Your task to perform on an android device: turn pop-ups on in chrome Image 0: 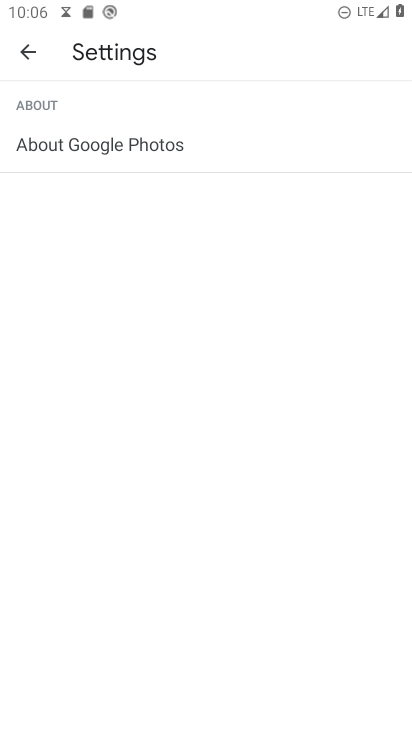
Step 0: press home button
Your task to perform on an android device: turn pop-ups on in chrome Image 1: 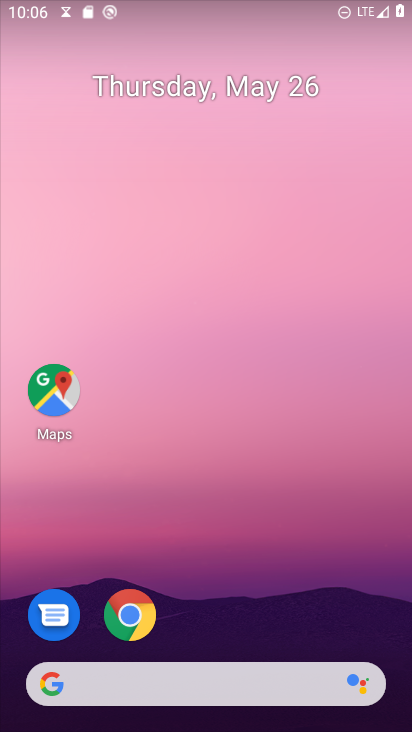
Step 1: click (137, 611)
Your task to perform on an android device: turn pop-ups on in chrome Image 2: 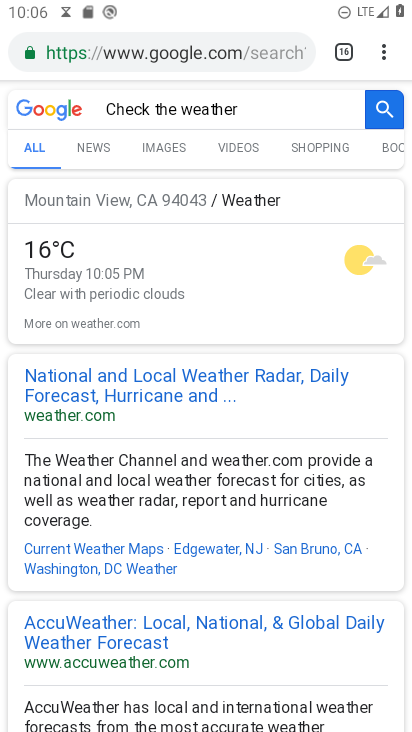
Step 2: click (380, 48)
Your task to perform on an android device: turn pop-ups on in chrome Image 3: 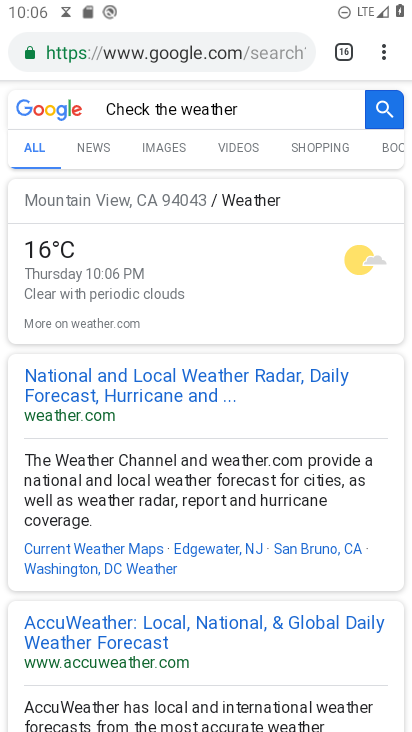
Step 3: click (388, 61)
Your task to perform on an android device: turn pop-ups on in chrome Image 4: 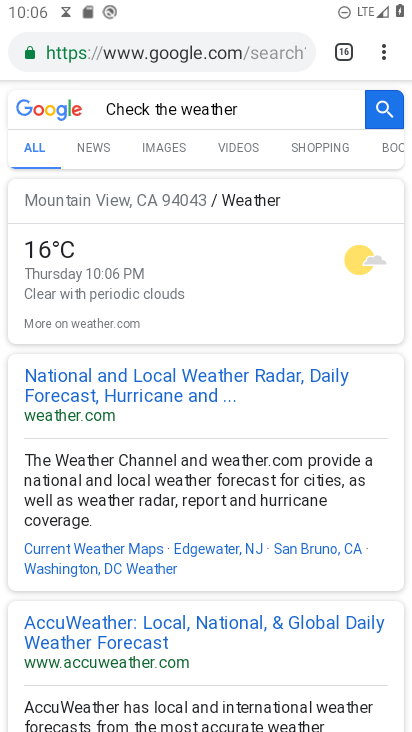
Step 4: click (380, 35)
Your task to perform on an android device: turn pop-ups on in chrome Image 5: 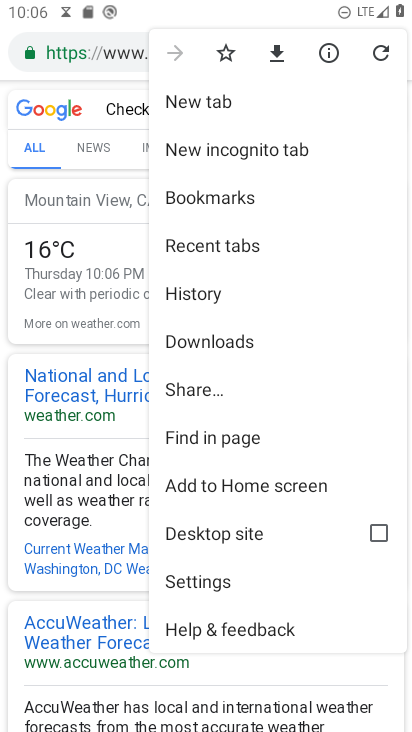
Step 5: click (230, 580)
Your task to perform on an android device: turn pop-ups on in chrome Image 6: 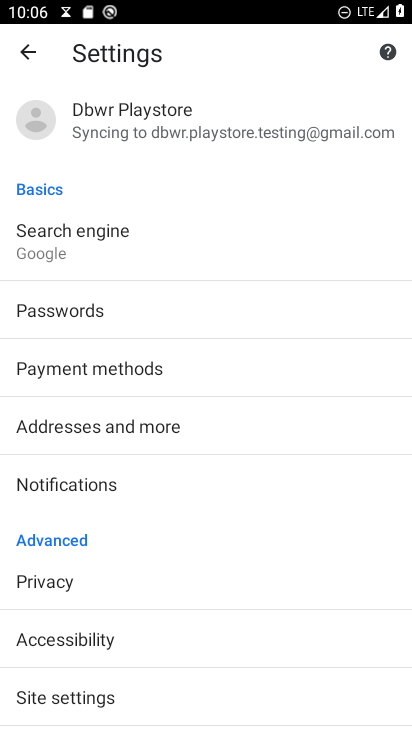
Step 6: drag from (139, 630) to (153, 273)
Your task to perform on an android device: turn pop-ups on in chrome Image 7: 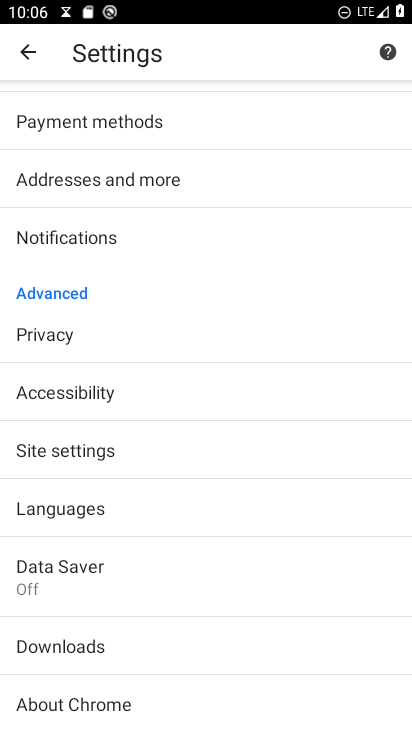
Step 7: click (88, 450)
Your task to perform on an android device: turn pop-ups on in chrome Image 8: 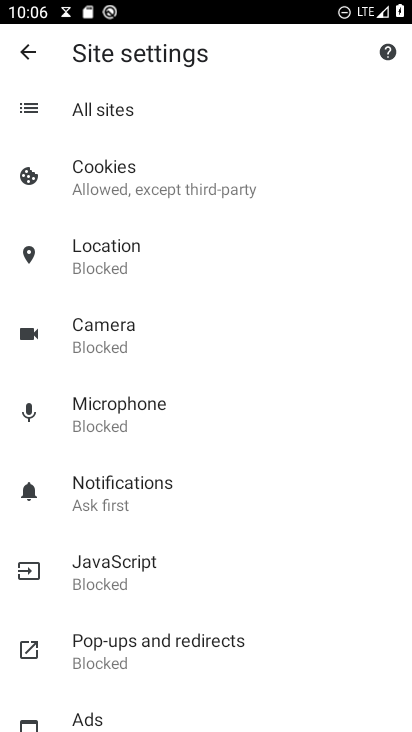
Step 8: click (145, 630)
Your task to perform on an android device: turn pop-ups on in chrome Image 9: 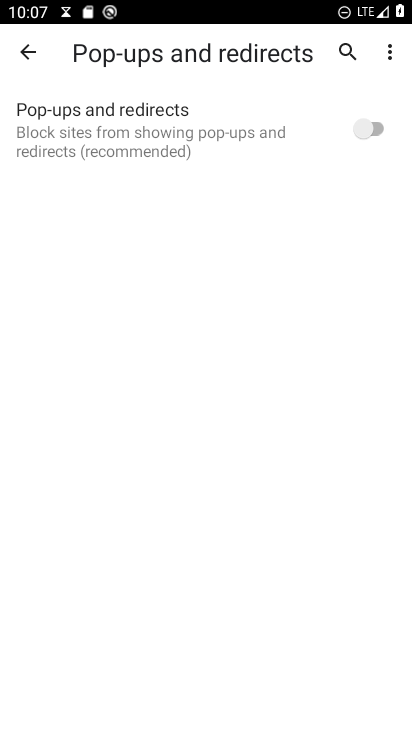
Step 9: click (368, 123)
Your task to perform on an android device: turn pop-ups on in chrome Image 10: 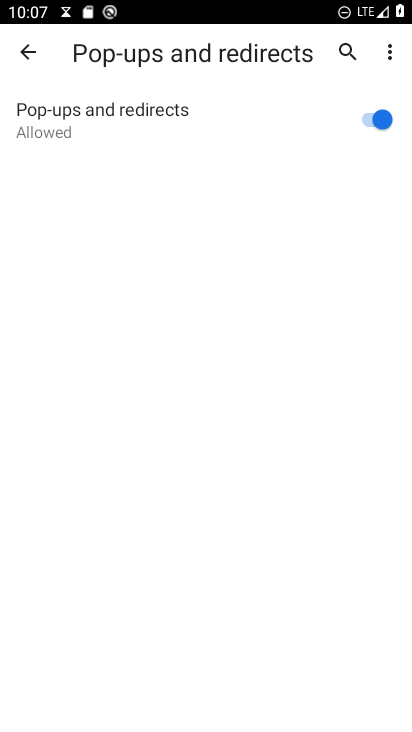
Step 10: task complete